Your task to perform on an android device: Open calendar and show me the first week of next month Image 0: 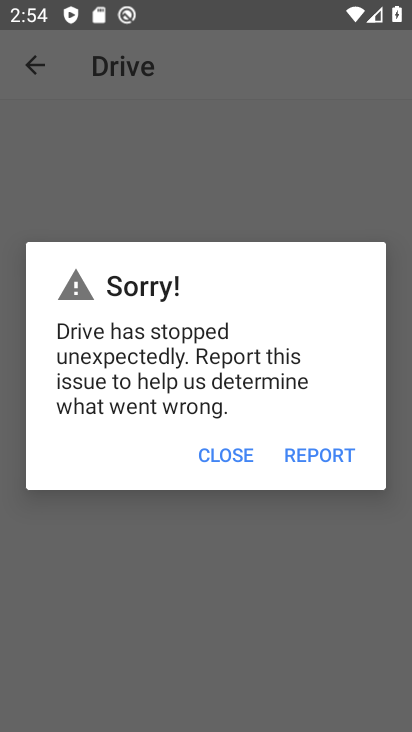
Step 0: press home button
Your task to perform on an android device: Open calendar and show me the first week of next month Image 1: 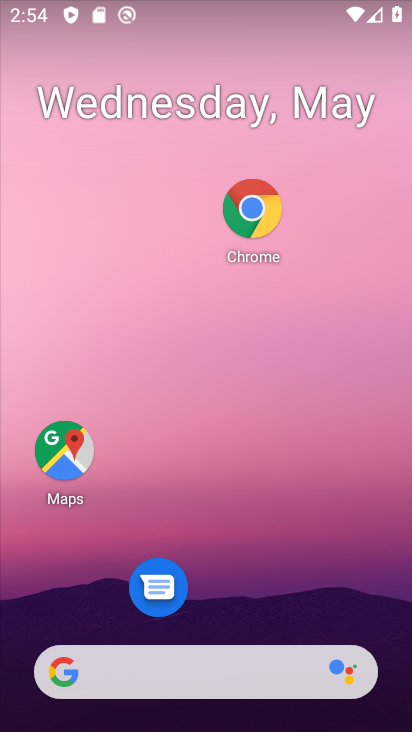
Step 1: click (250, 113)
Your task to perform on an android device: Open calendar and show me the first week of next month Image 2: 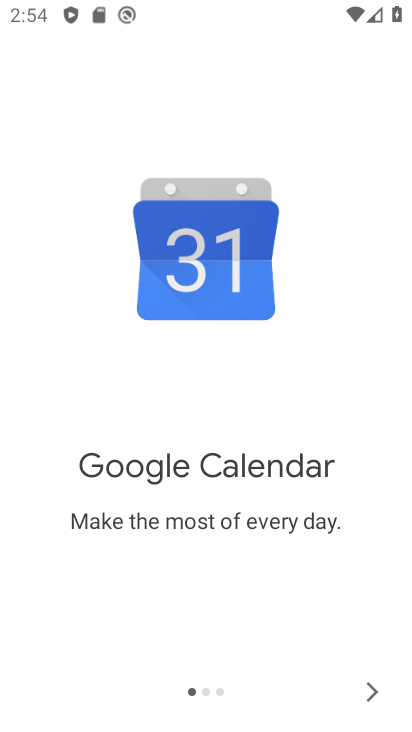
Step 2: click (366, 692)
Your task to perform on an android device: Open calendar and show me the first week of next month Image 3: 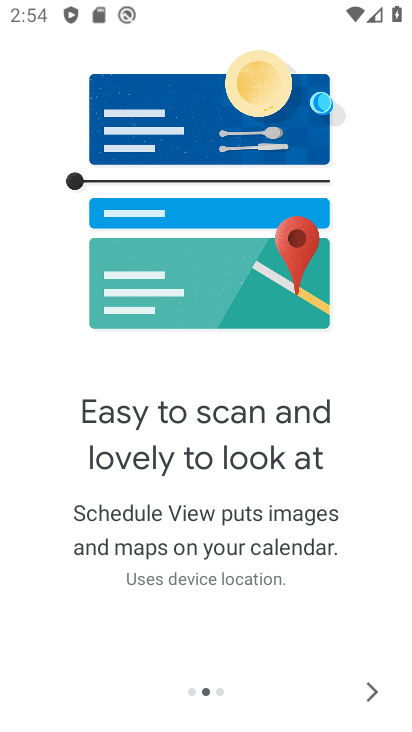
Step 3: click (366, 692)
Your task to perform on an android device: Open calendar and show me the first week of next month Image 4: 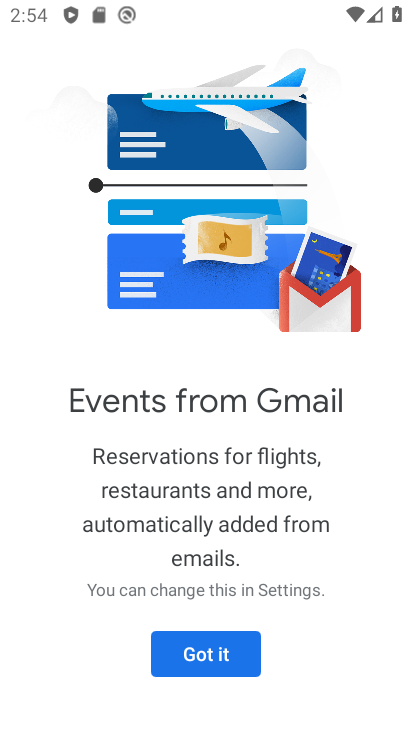
Step 4: click (233, 643)
Your task to perform on an android device: Open calendar and show me the first week of next month Image 5: 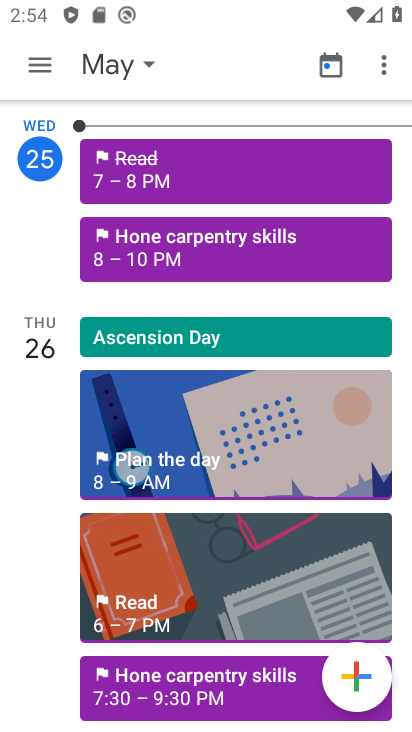
Step 5: click (128, 51)
Your task to perform on an android device: Open calendar and show me the first week of next month Image 6: 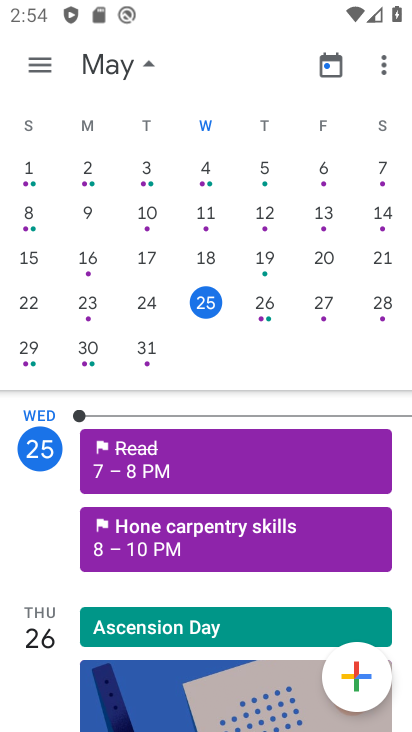
Step 6: drag from (374, 360) to (90, 341)
Your task to perform on an android device: Open calendar and show me the first week of next month Image 7: 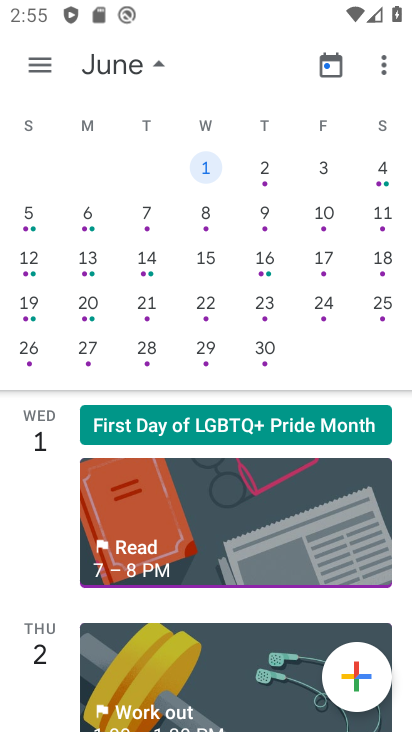
Step 7: click (274, 176)
Your task to perform on an android device: Open calendar and show me the first week of next month Image 8: 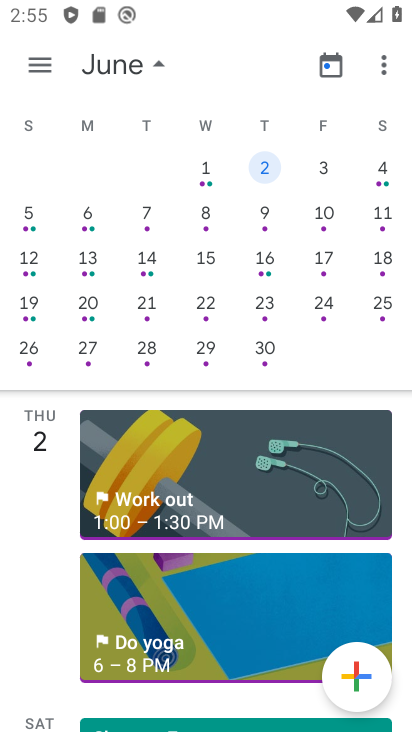
Step 8: task complete